Your task to perform on an android device: change text size in settings app Image 0: 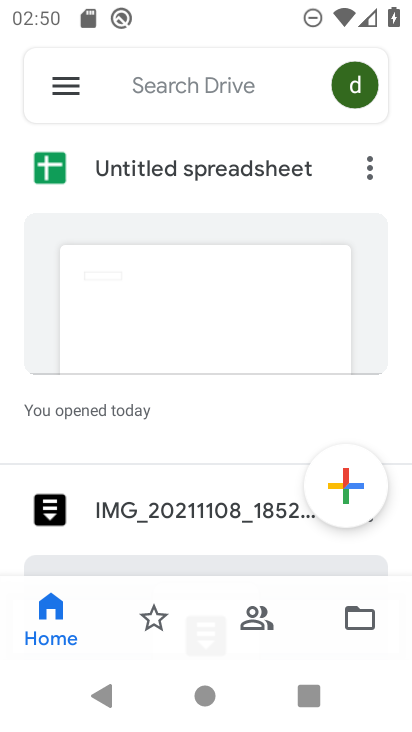
Step 0: click (58, 91)
Your task to perform on an android device: change text size in settings app Image 1: 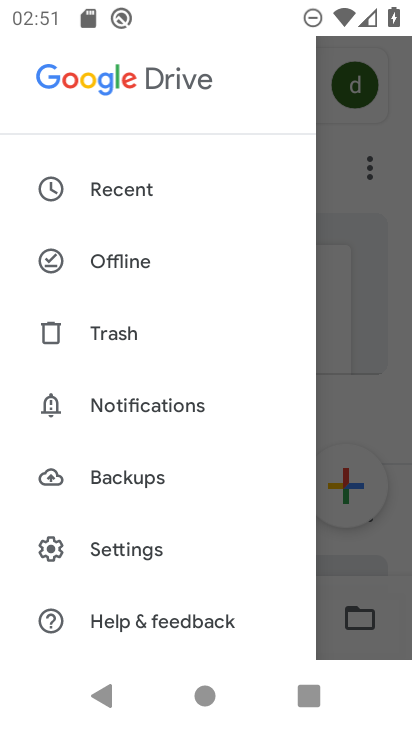
Step 1: press home button
Your task to perform on an android device: change text size in settings app Image 2: 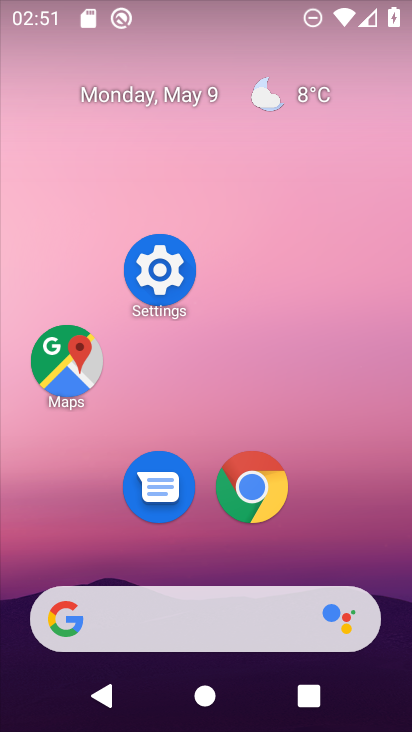
Step 2: drag from (363, 575) to (327, 3)
Your task to perform on an android device: change text size in settings app Image 3: 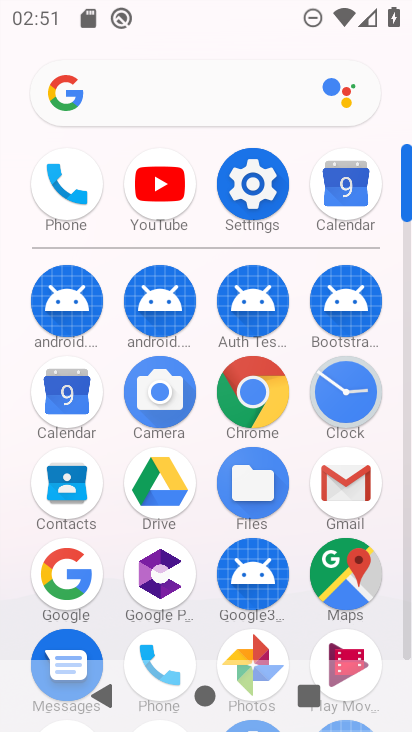
Step 3: click (258, 172)
Your task to perform on an android device: change text size in settings app Image 4: 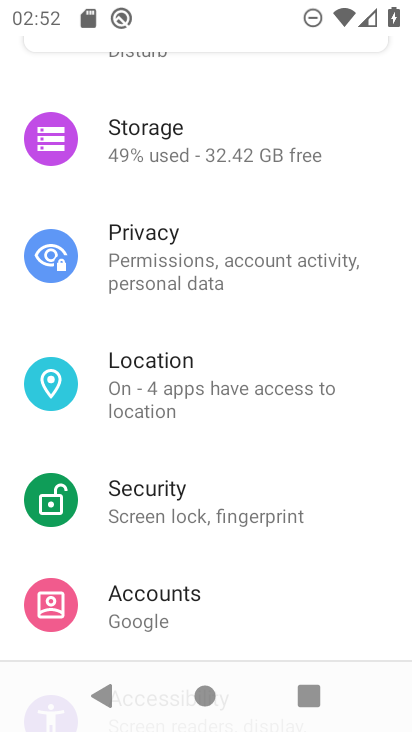
Step 4: click (138, 565)
Your task to perform on an android device: change text size in settings app Image 5: 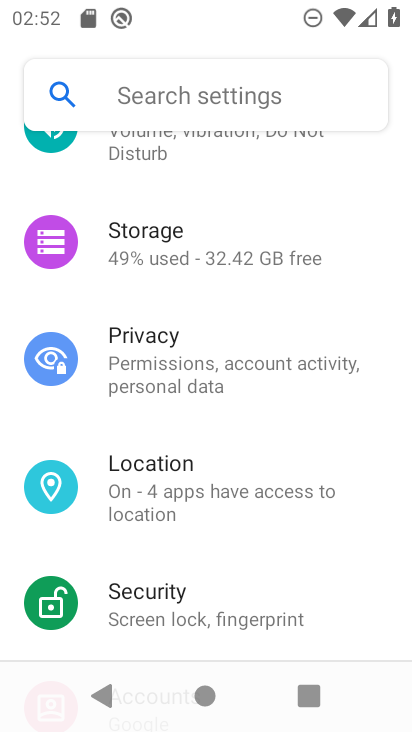
Step 5: drag from (144, 186) to (127, 602)
Your task to perform on an android device: change text size in settings app Image 6: 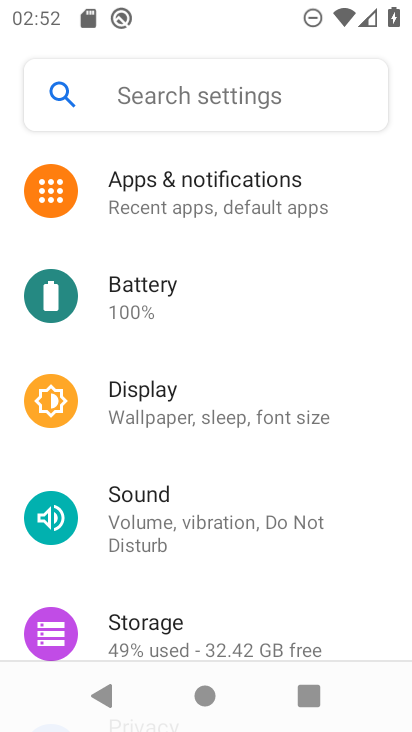
Step 6: click (150, 401)
Your task to perform on an android device: change text size in settings app Image 7: 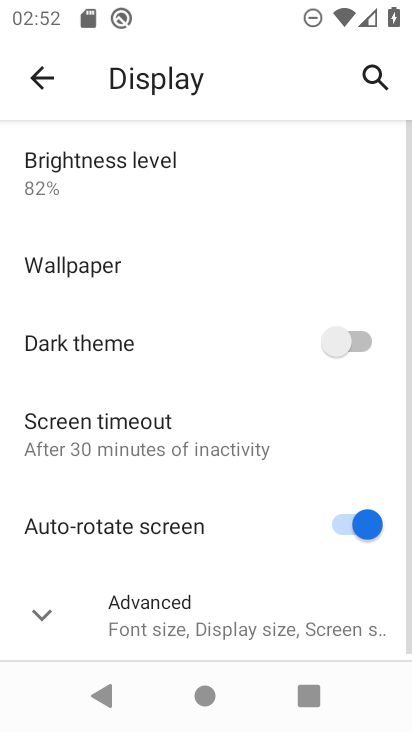
Step 7: click (194, 612)
Your task to perform on an android device: change text size in settings app Image 8: 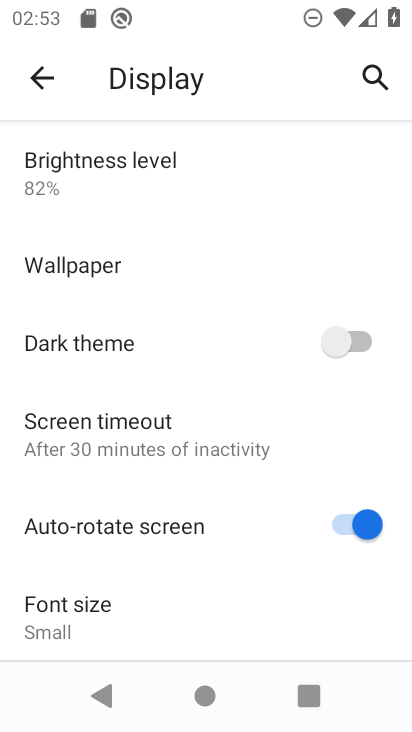
Step 8: drag from (165, 596) to (137, 220)
Your task to perform on an android device: change text size in settings app Image 9: 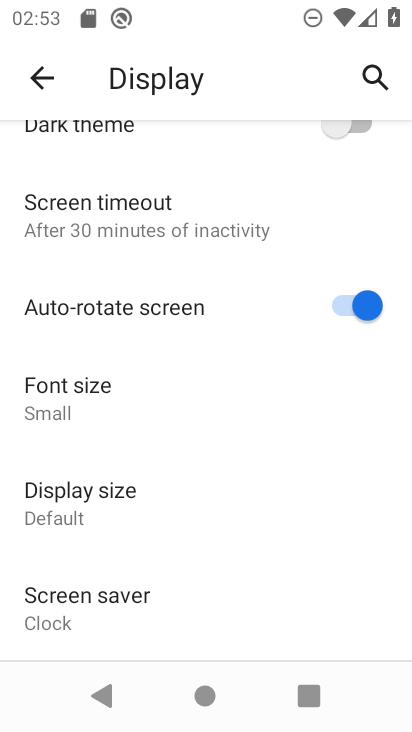
Step 9: click (115, 392)
Your task to perform on an android device: change text size in settings app Image 10: 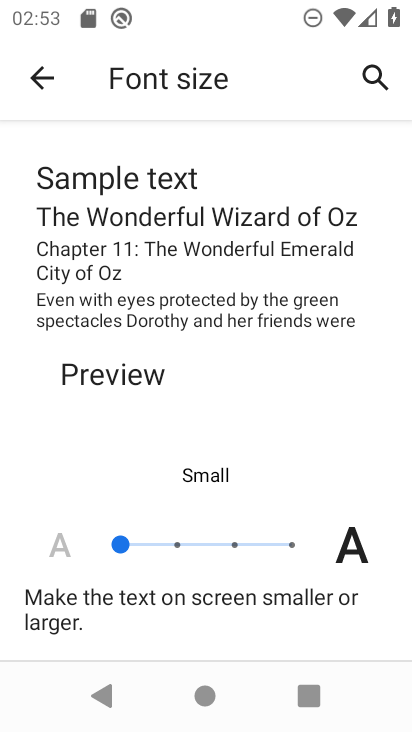
Step 10: click (169, 537)
Your task to perform on an android device: change text size in settings app Image 11: 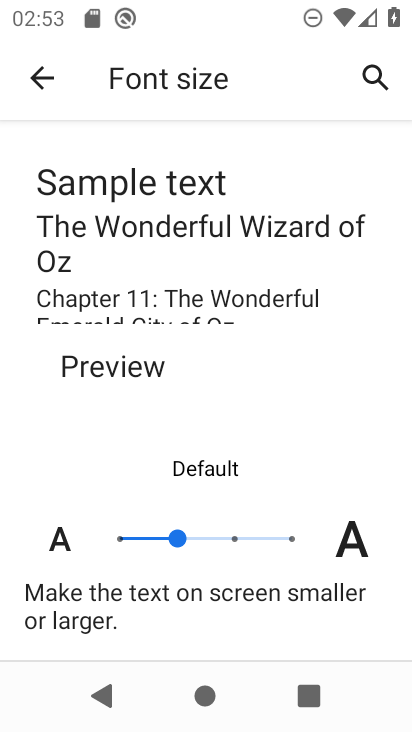
Step 11: task complete